Your task to perform on an android device: change the upload size in google photos Image 0: 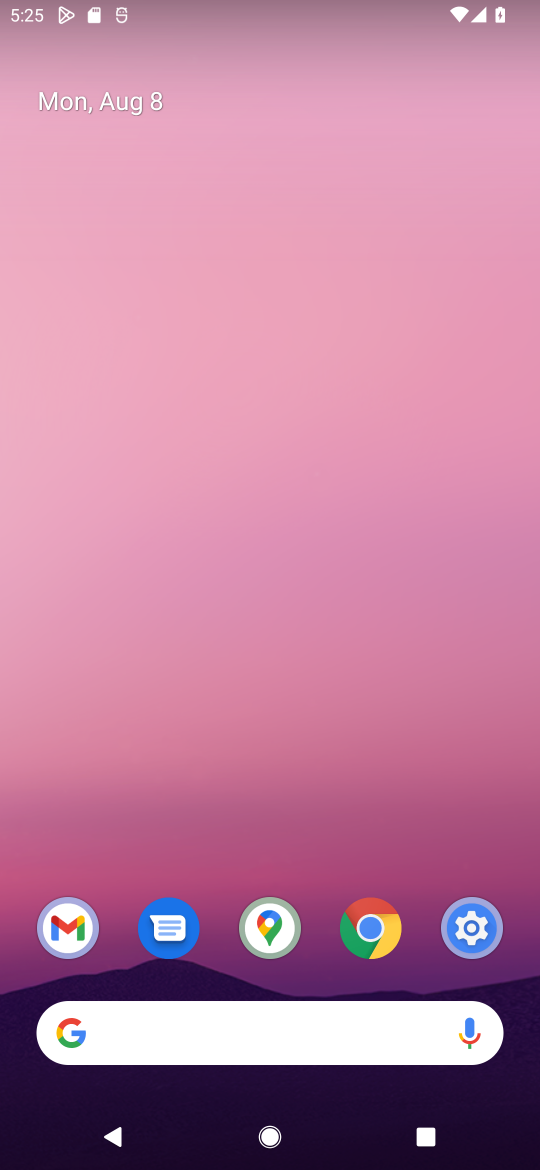
Step 0: drag from (244, 963) to (338, 39)
Your task to perform on an android device: change the upload size in google photos Image 1: 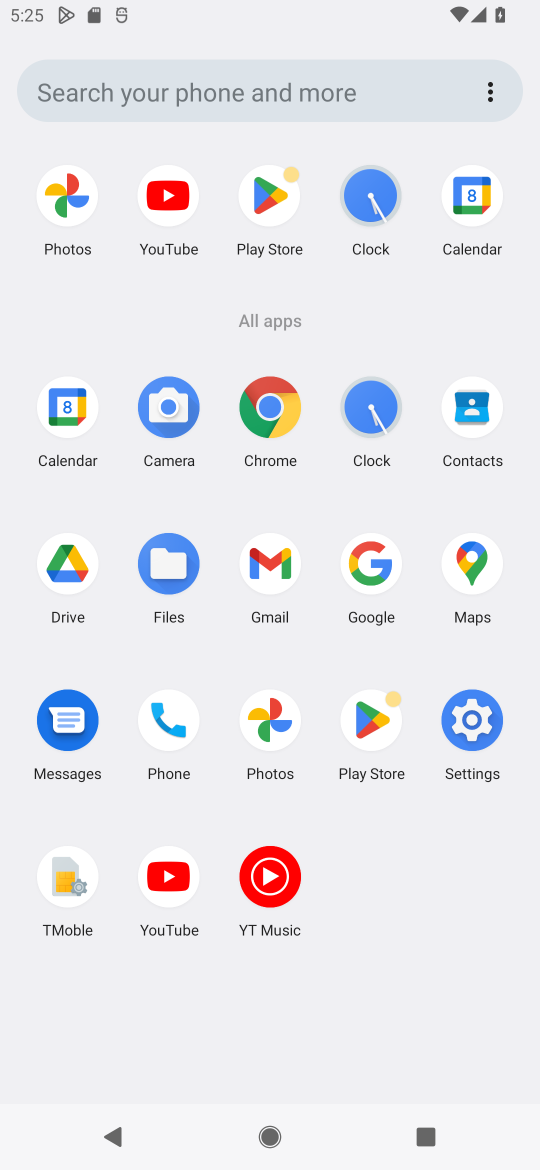
Step 1: click (263, 728)
Your task to perform on an android device: change the upload size in google photos Image 2: 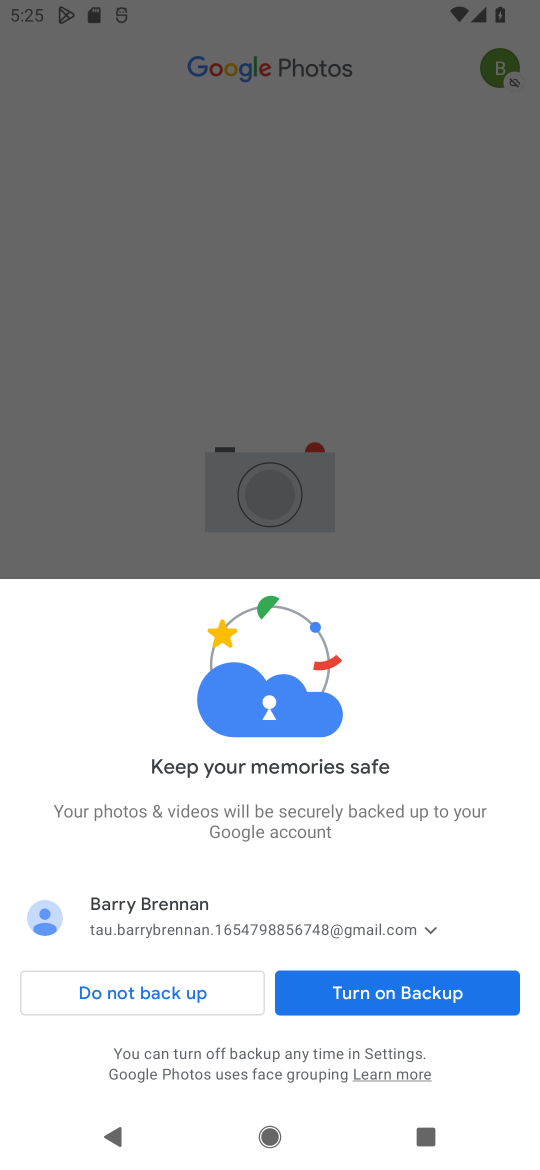
Step 2: click (161, 993)
Your task to perform on an android device: change the upload size in google photos Image 3: 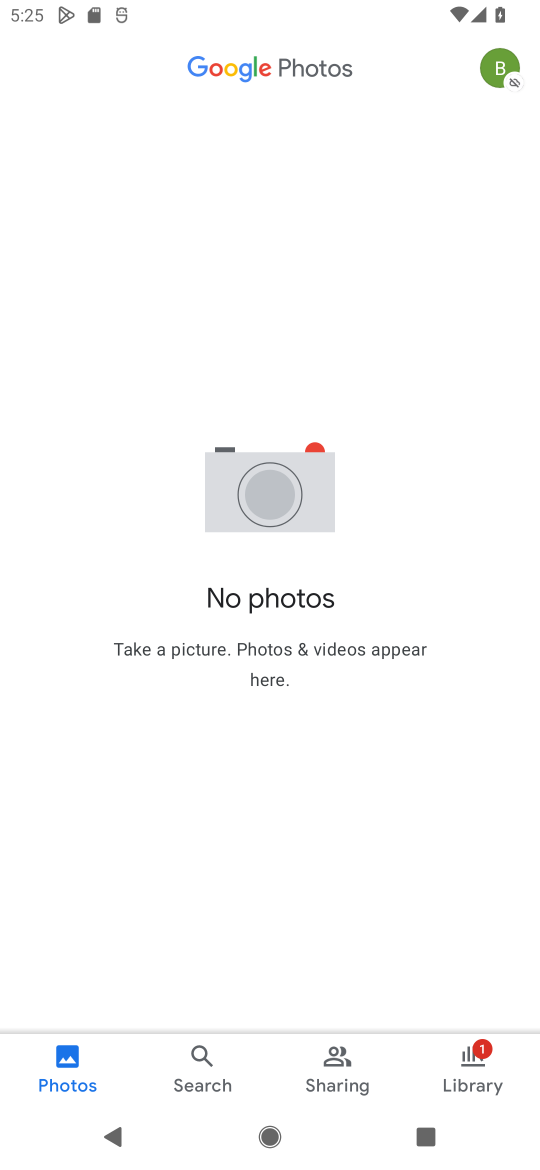
Step 3: click (494, 73)
Your task to perform on an android device: change the upload size in google photos Image 4: 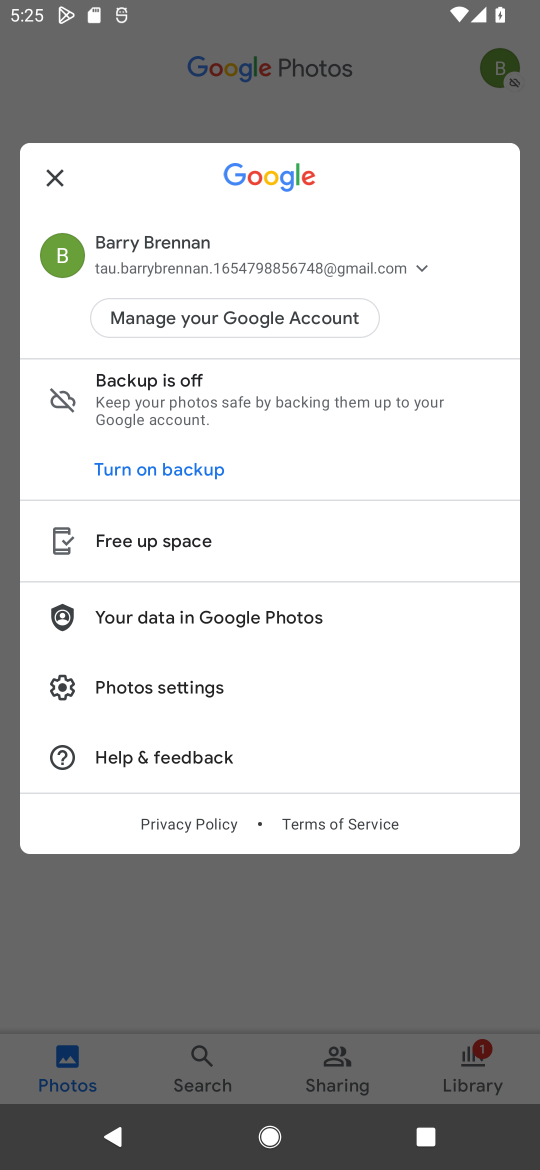
Step 4: click (177, 689)
Your task to perform on an android device: change the upload size in google photos Image 5: 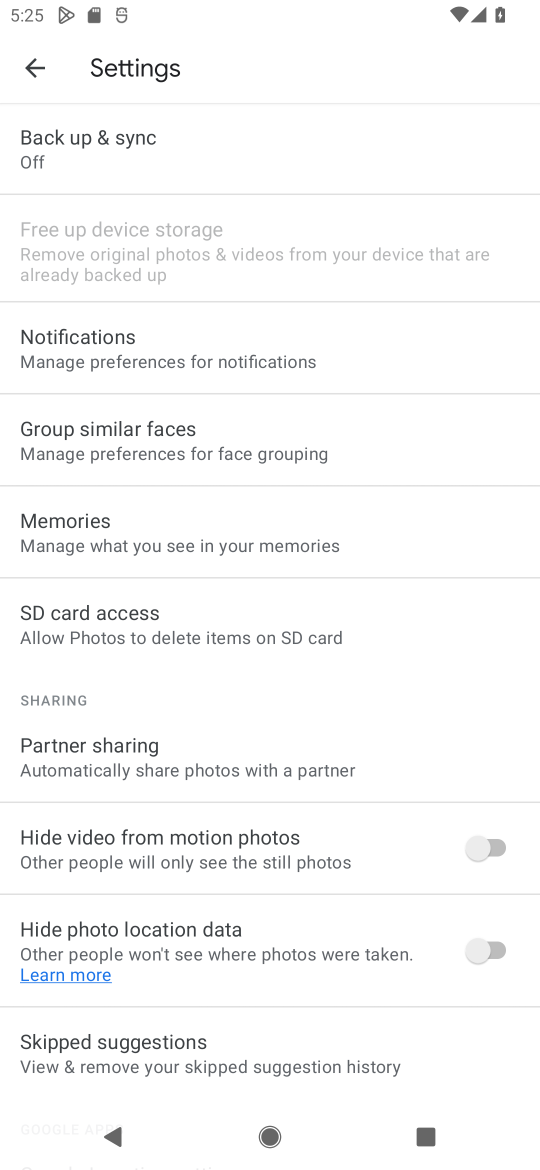
Step 5: click (156, 143)
Your task to perform on an android device: change the upload size in google photos Image 6: 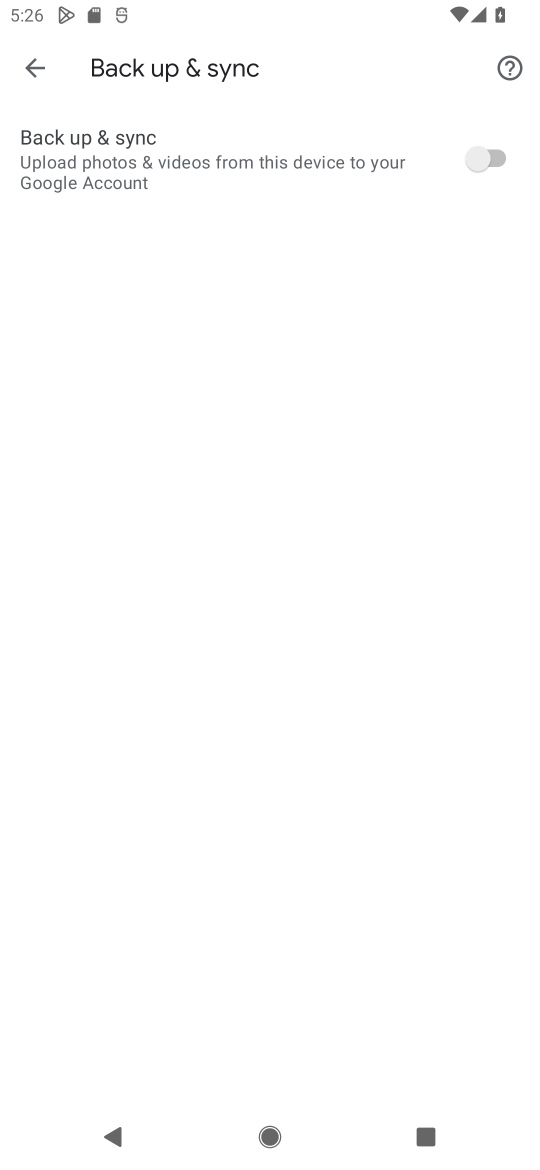
Step 6: click (471, 157)
Your task to perform on an android device: change the upload size in google photos Image 7: 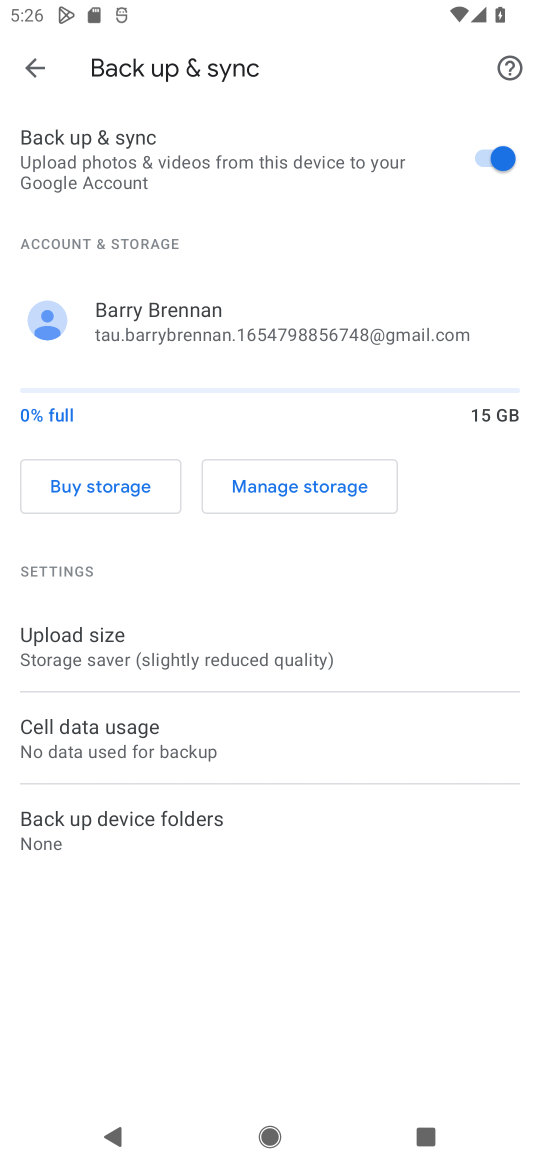
Step 7: click (121, 660)
Your task to perform on an android device: change the upload size in google photos Image 8: 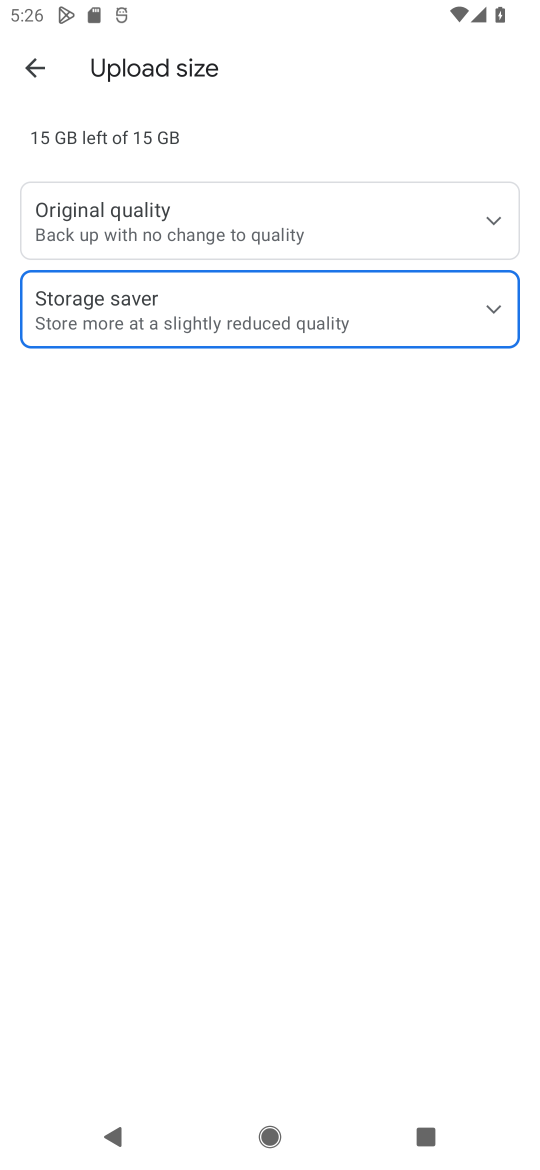
Step 8: click (208, 212)
Your task to perform on an android device: change the upload size in google photos Image 9: 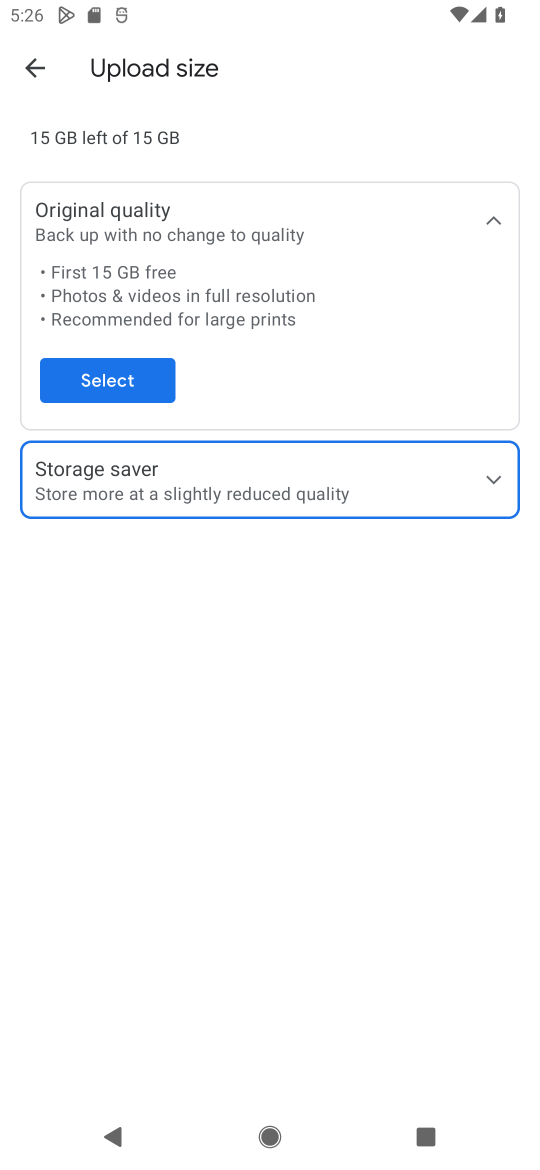
Step 9: click (115, 388)
Your task to perform on an android device: change the upload size in google photos Image 10: 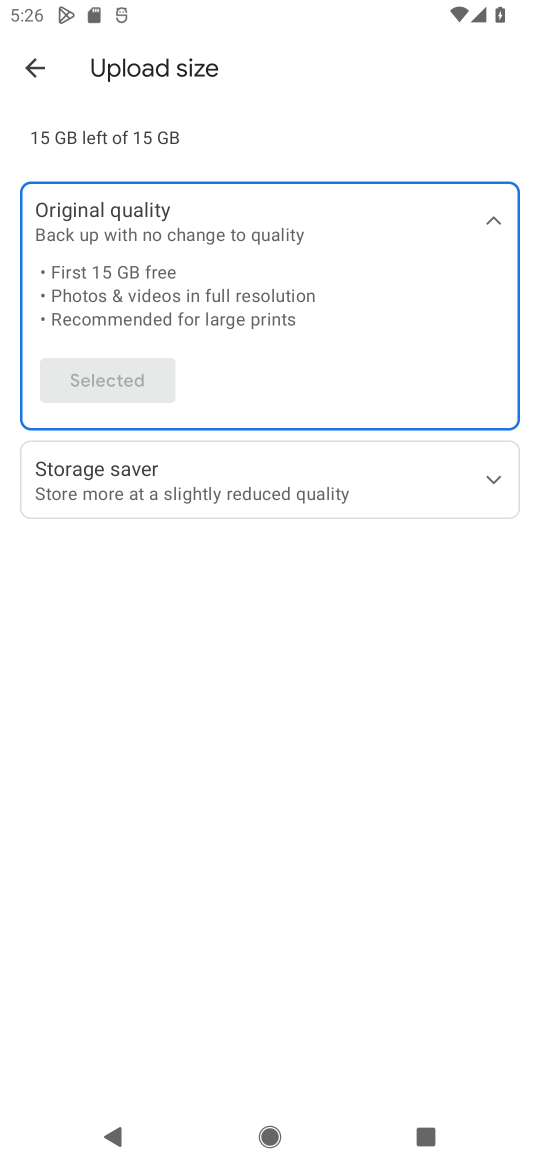
Step 10: task complete